Your task to perform on an android device: Open Chrome and go to settings Image 0: 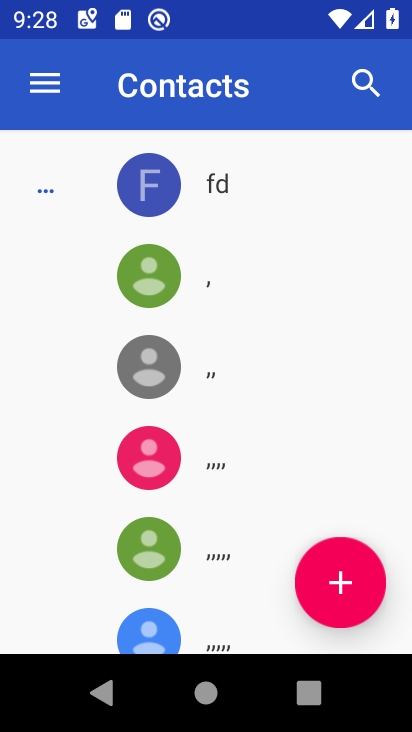
Step 0: press home button
Your task to perform on an android device: Open Chrome and go to settings Image 1: 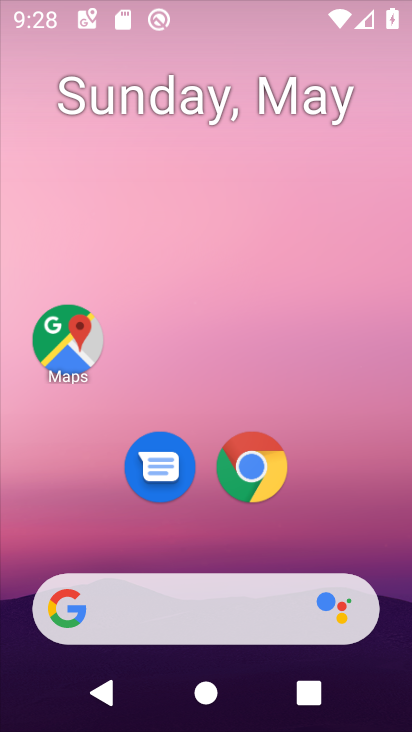
Step 1: drag from (374, 416) to (343, 103)
Your task to perform on an android device: Open Chrome and go to settings Image 2: 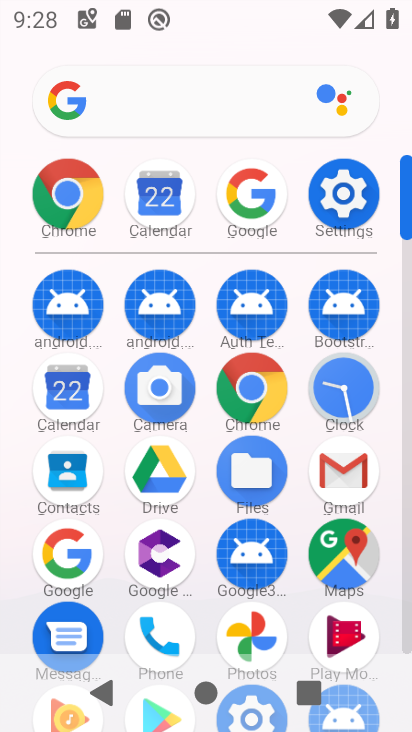
Step 2: click (245, 388)
Your task to perform on an android device: Open Chrome and go to settings Image 3: 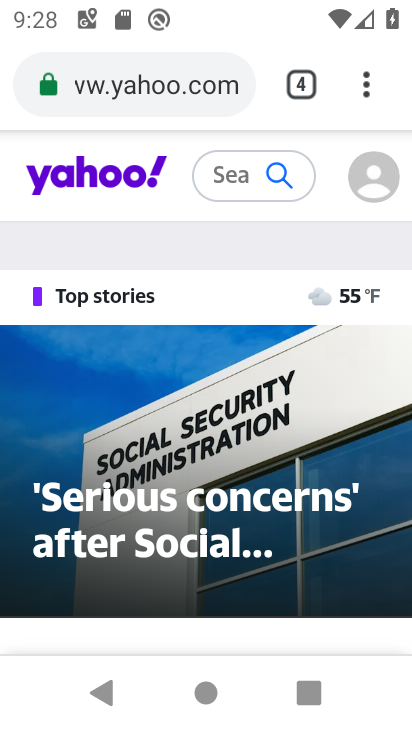
Step 3: task complete